Your task to perform on an android device: Go to accessibility settings Image 0: 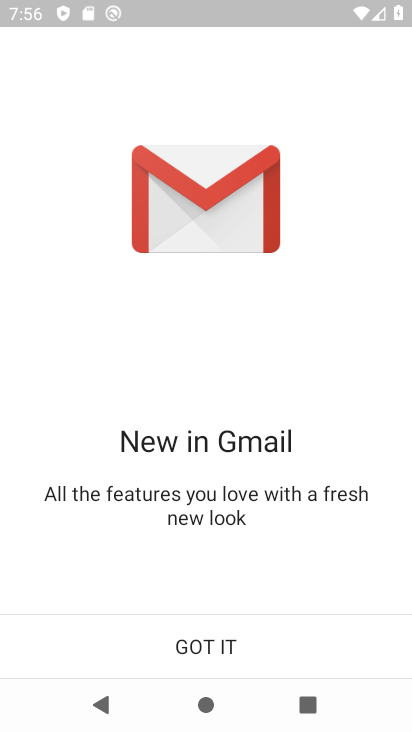
Step 0: press home button
Your task to perform on an android device: Go to accessibility settings Image 1: 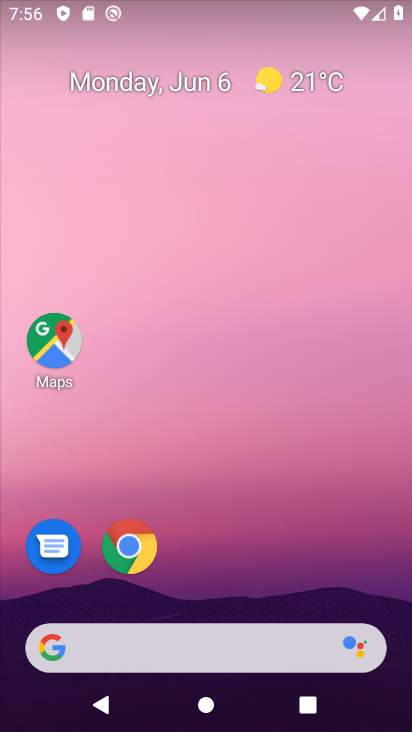
Step 1: drag from (260, 660) to (159, 15)
Your task to perform on an android device: Go to accessibility settings Image 2: 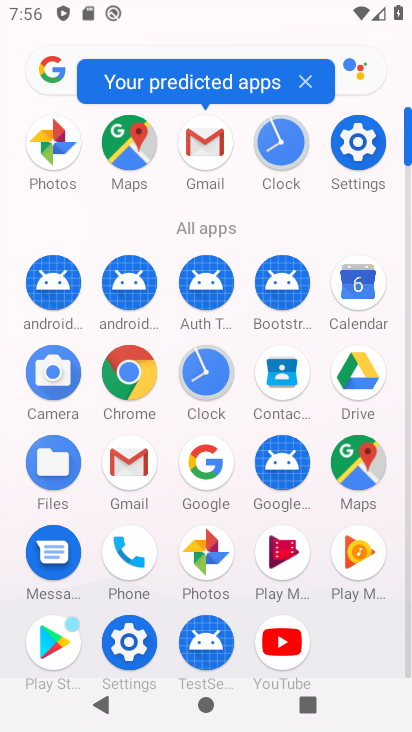
Step 2: click (359, 167)
Your task to perform on an android device: Go to accessibility settings Image 3: 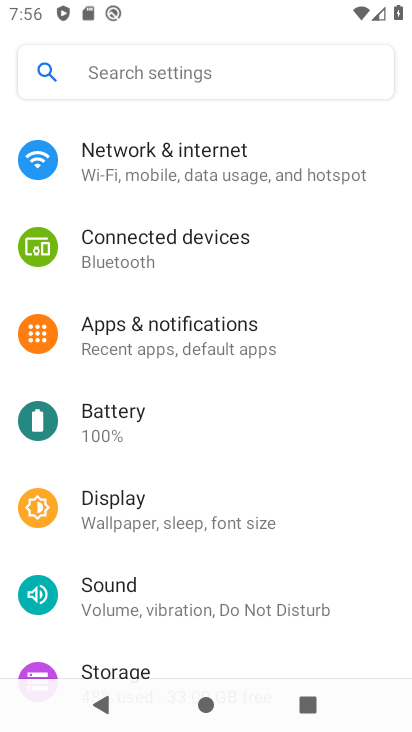
Step 3: drag from (302, 520) to (317, 145)
Your task to perform on an android device: Go to accessibility settings Image 4: 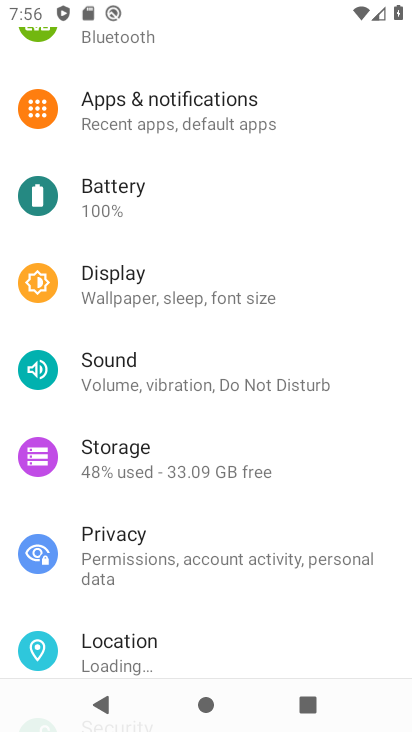
Step 4: drag from (237, 550) to (306, 105)
Your task to perform on an android device: Go to accessibility settings Image 5: 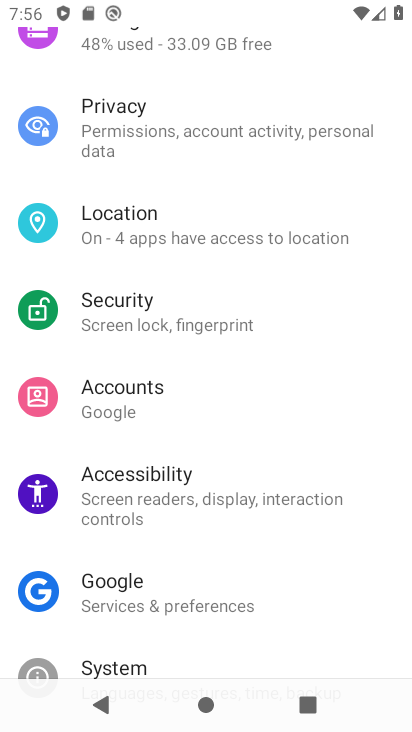
Step 5: click (232, 507)
Your task to perform on an android device: Go to accessibility settings Image 6: 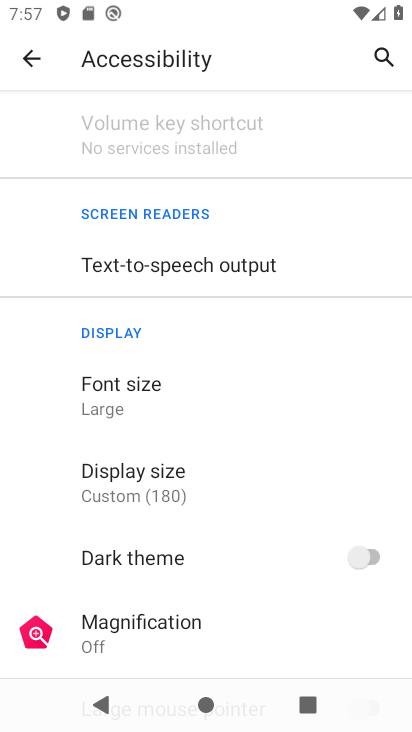
Step 6: task complete